Your task to perform on an android device: turn on wifi Image 0: 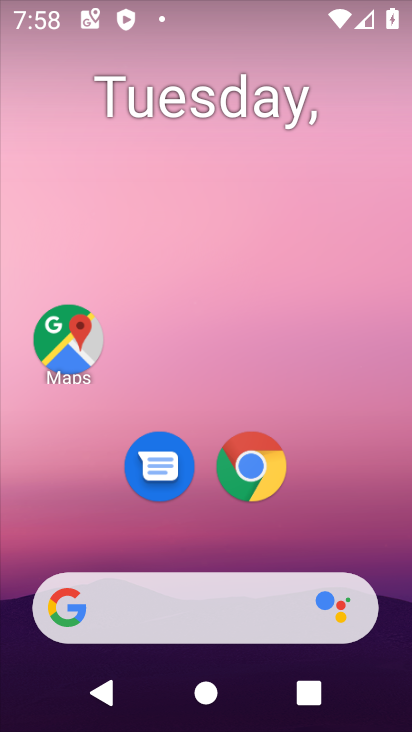
Step 0: press home button
Your task to perform on an android device: turn on wifi Image 1: 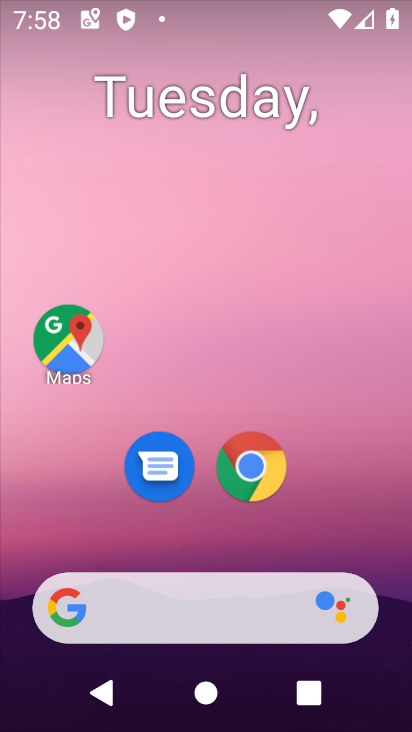
Step 1: task complete